Your task to perform on an android device: make emails show in primary in the gmail app Image 0: 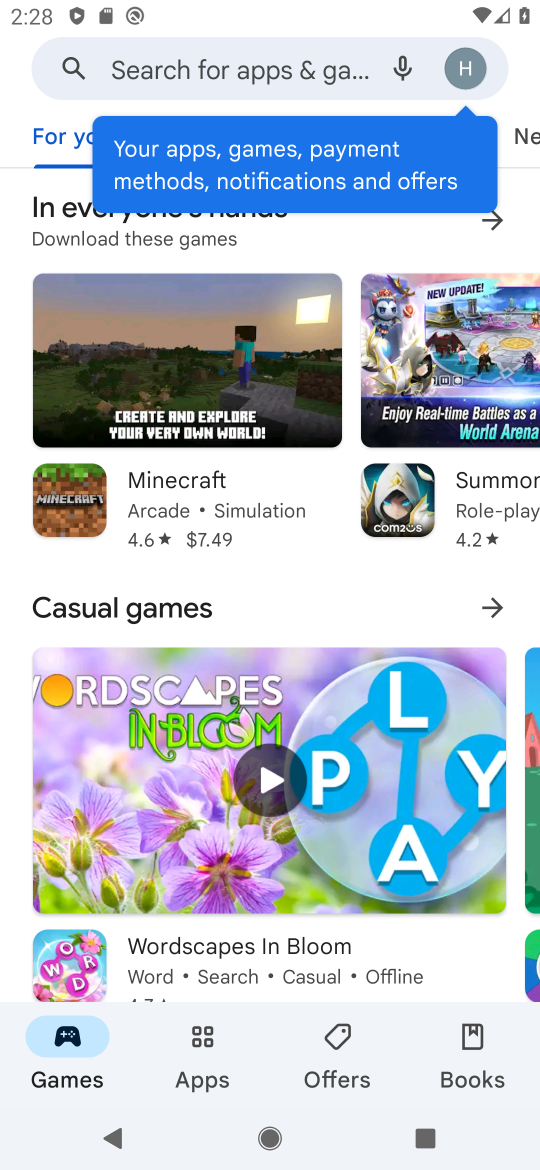
Step 0: press home button
Your task to perform on an android device: make emails show in primary in the gmail app Image 1: 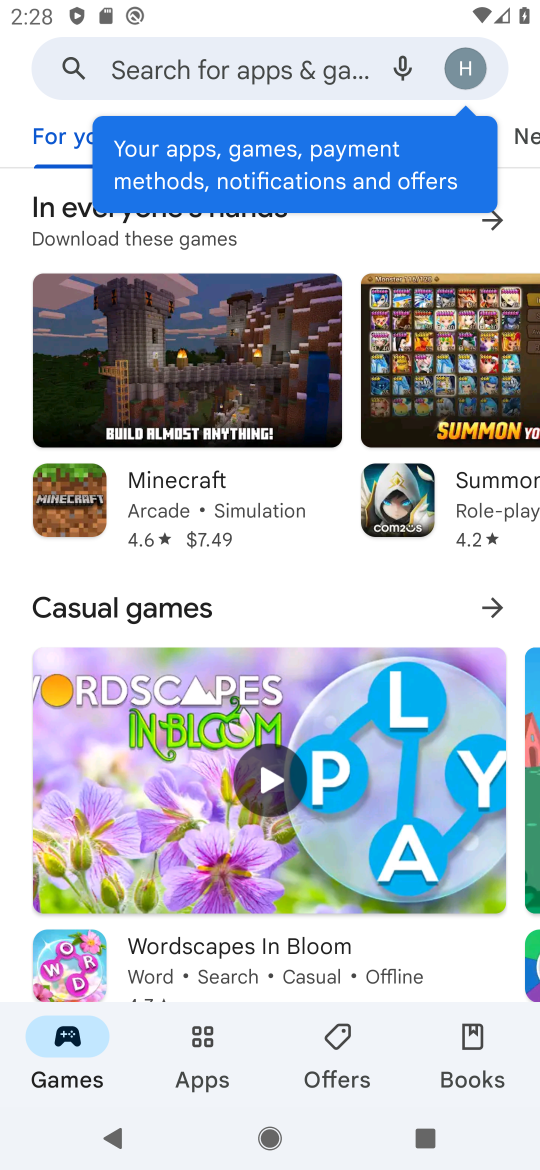
Step 1: press home button
Your task to perform on an android device: make emails show in primary in the gmail app Image 2: 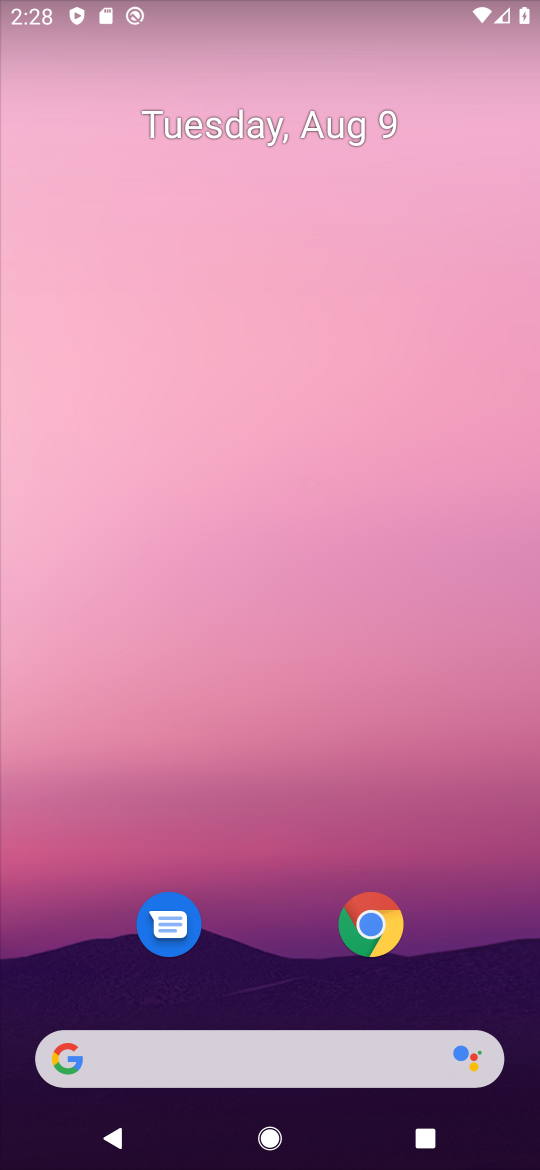
Step 2: drag from (289, 874) to (388, 2)
Your task to perform on an android device: make emails show in primary in the gmail app Image 3: 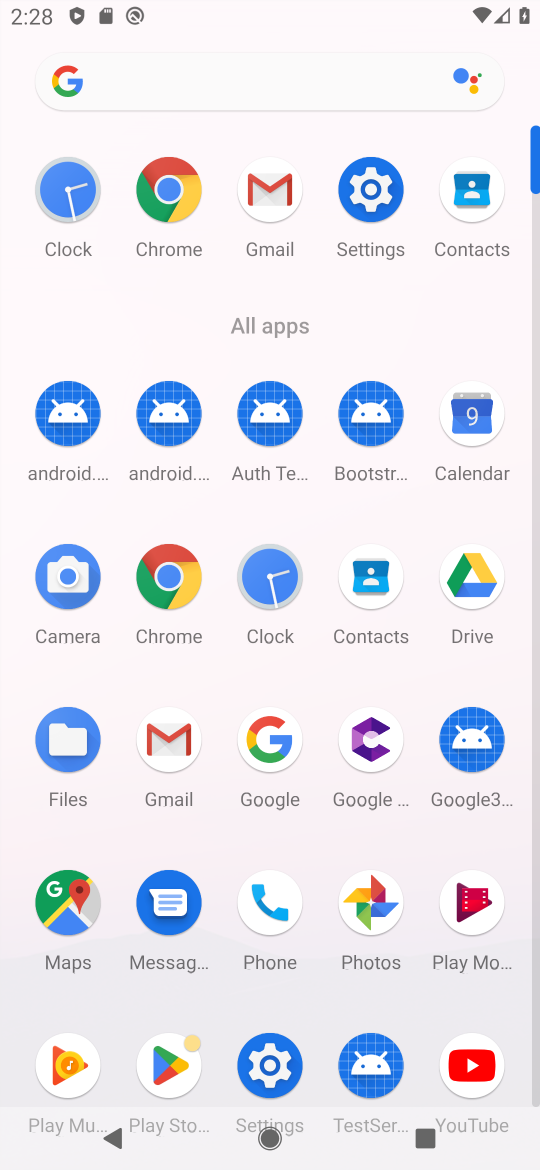
Step 3: click (276, 194)
Your task to perform on an android device: make emails show in primary in the gmail app Image 4: 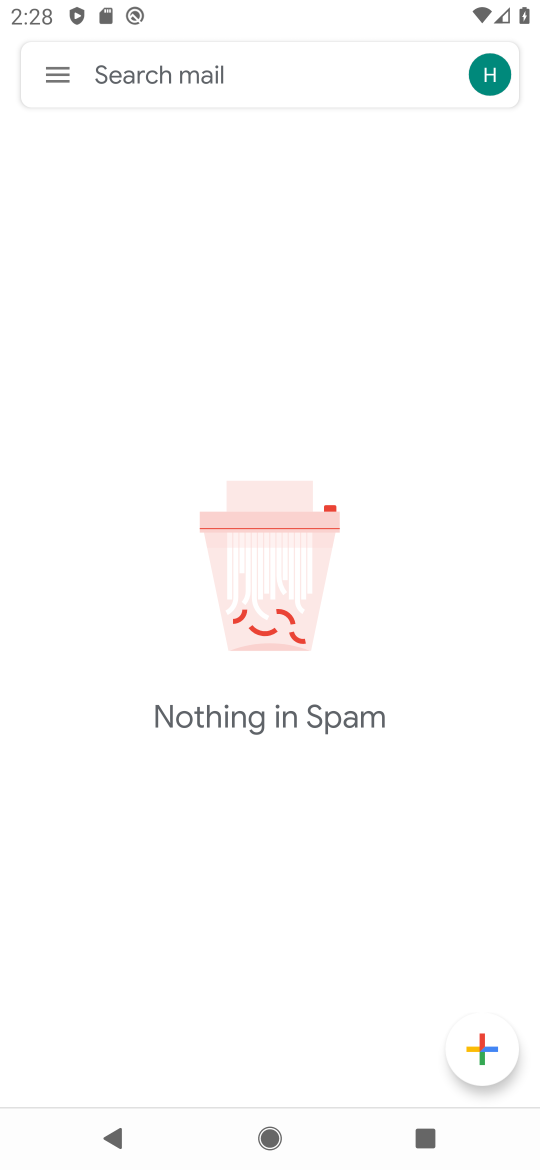
Step 4: click (59, 75)
Your task to perform on an android device: make emails show in primary in the gmail app Image 5: 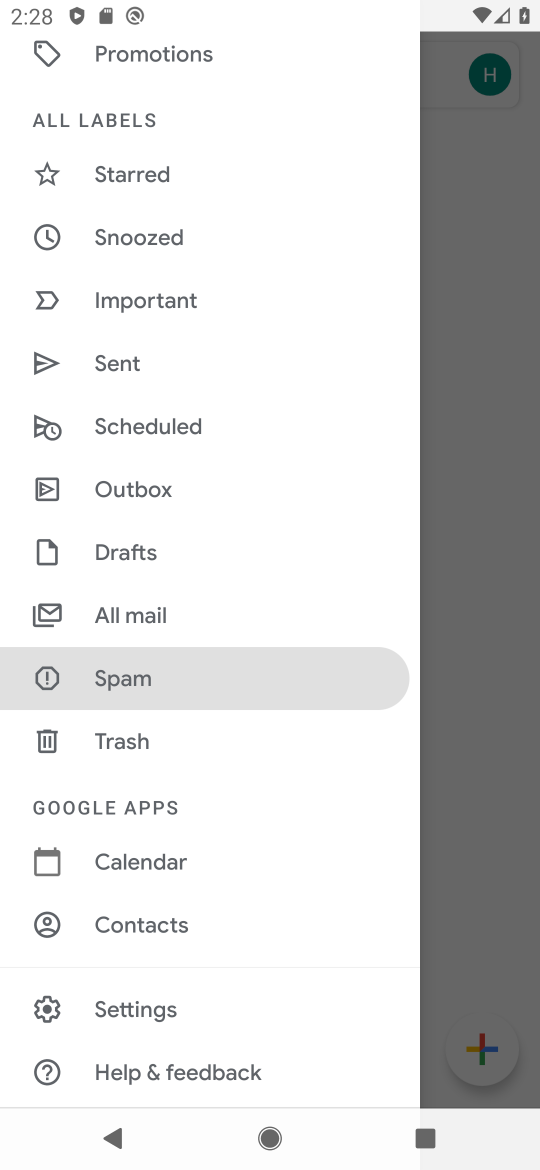
Step 5: click (153, 1005)
Your task to perform on an android device: make emails show in primary in the gmail app Image 6: 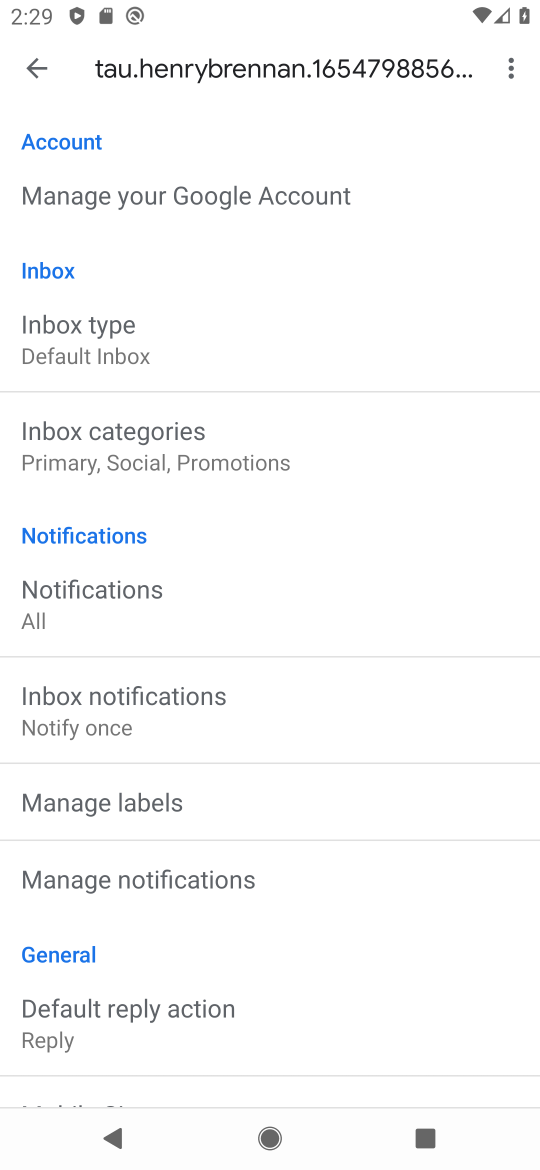
Step 6: click (116, 439)
Your task to perform on an android device: make emails show in primary in the gmail app Image 7: 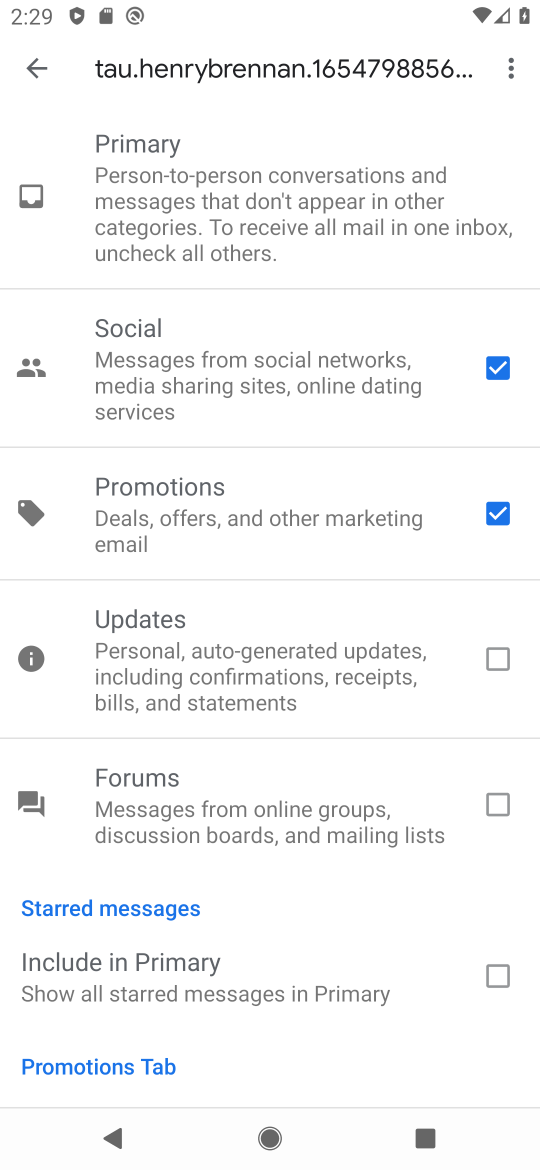
Step 7: click (490, 364)
Your task to perform on an android device: make emails show in primary in the gmail app Image 8: 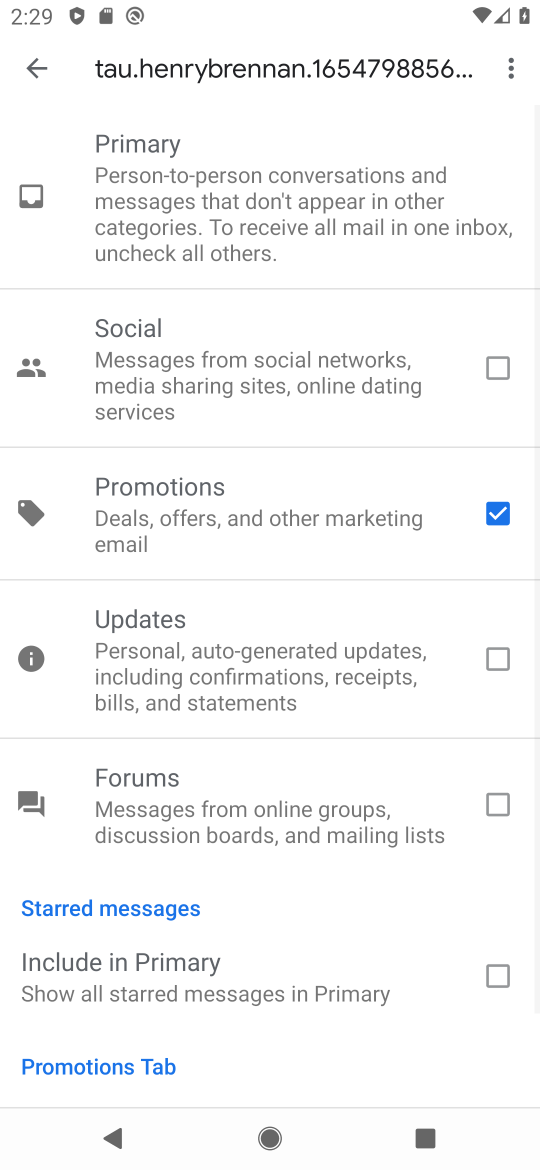
Step 8: click (498, 515)
Your task to perform on an android device: make emails show in primary in the gmail app Image 9: 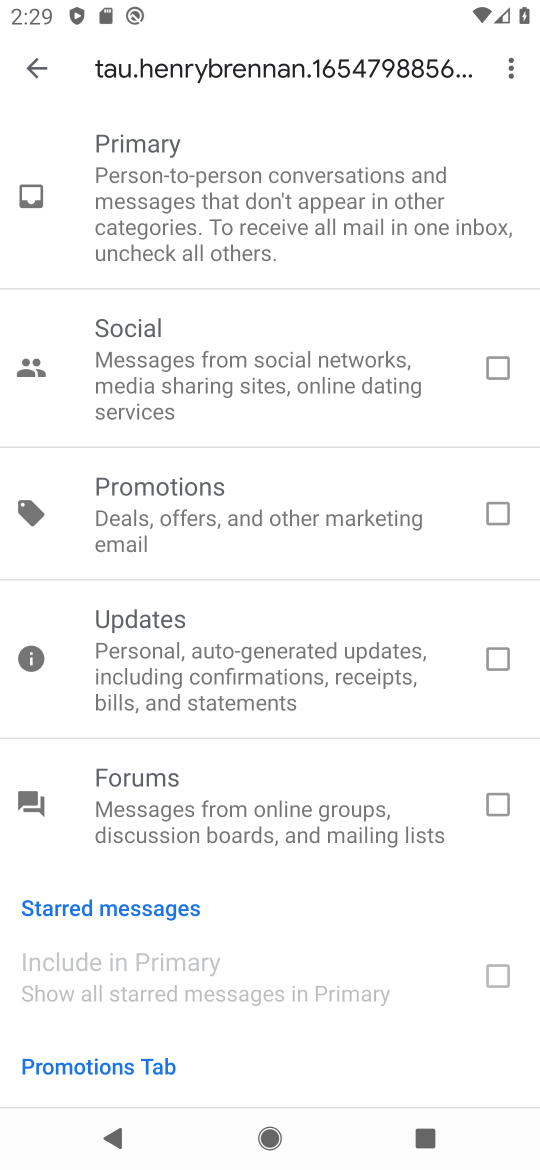
Step 9: click (36, 63)
Your task to perform on an android device: make emails show in primary in the gmail app Image 10: 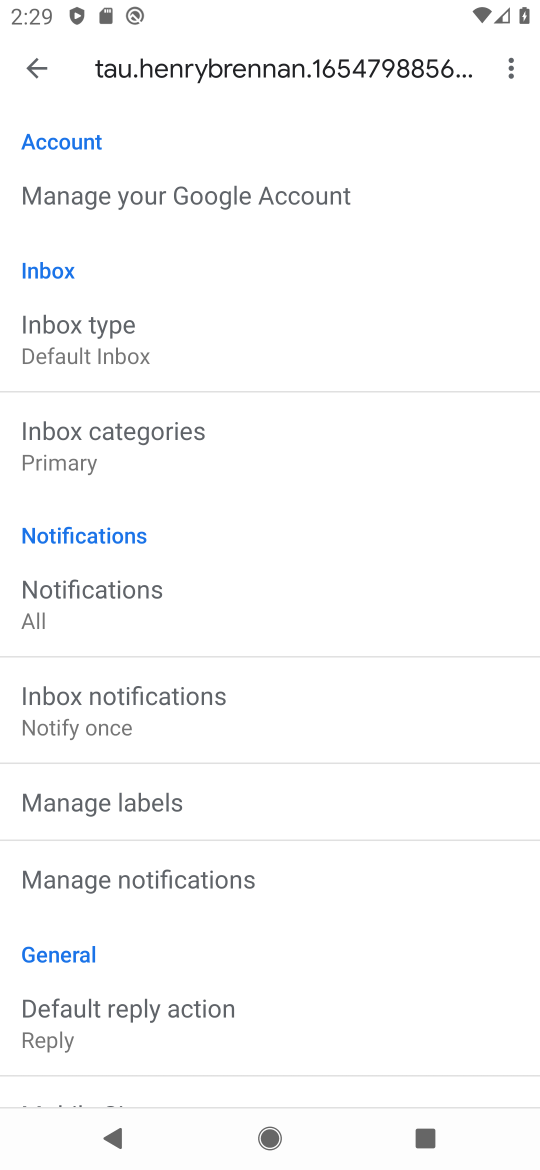
Step 10: task complete